Your task to perform on an android device: Open calendar and show me the third week of next month Image 0: 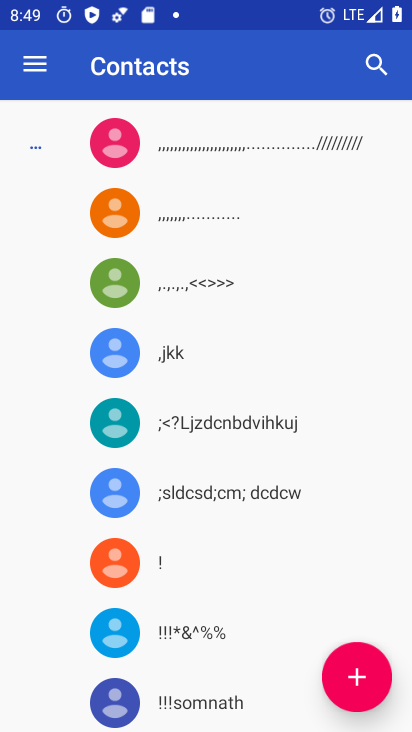
Step 0: press home button
Your task to perform on an android device: Open calendar and show me the third week of next month Image 1: 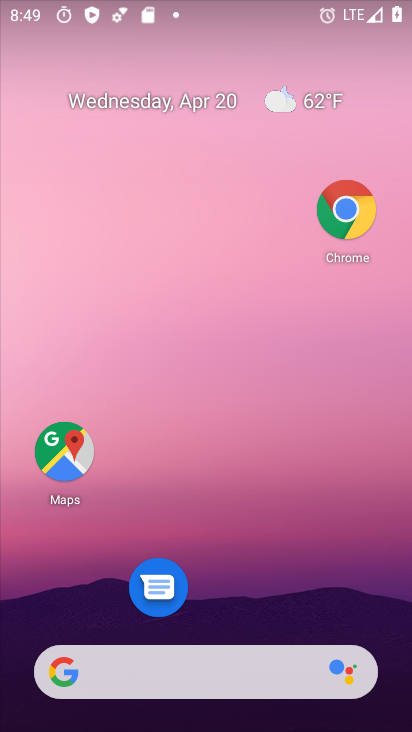
Step 1: click (115, 94)
Your task to perform on an android device: Open calendar and show me the third week of next month Image 2: 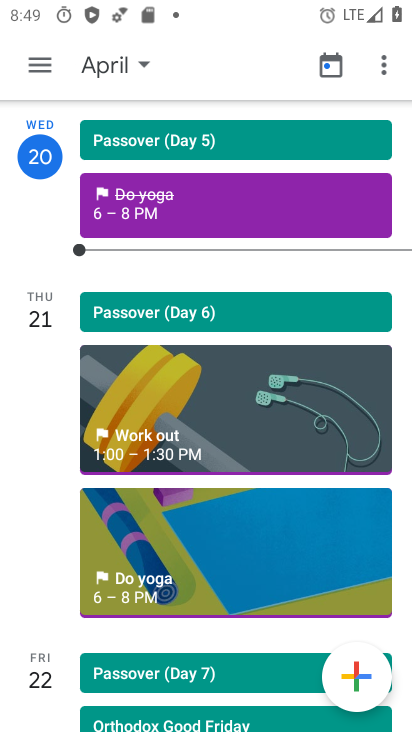
Step 2: click (149, 71)
Your task to perform on an android device: Open calendar and show me the third week of next month Image 3: 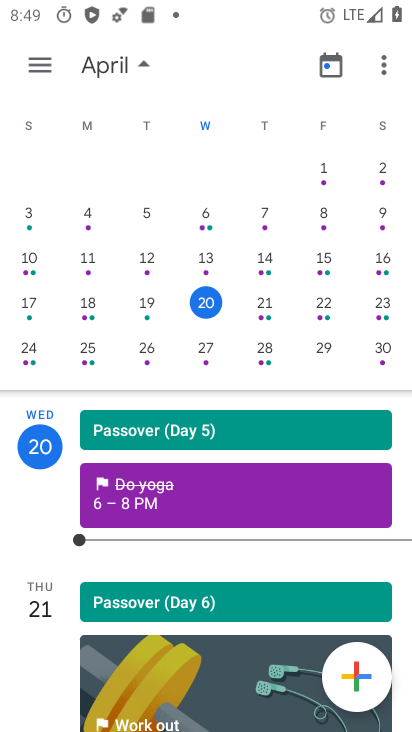
Step 3: drag from (382, 282) to (60, 276)
Your task to perform on an android device: Open calendar and show me the third week of next month Image 4: 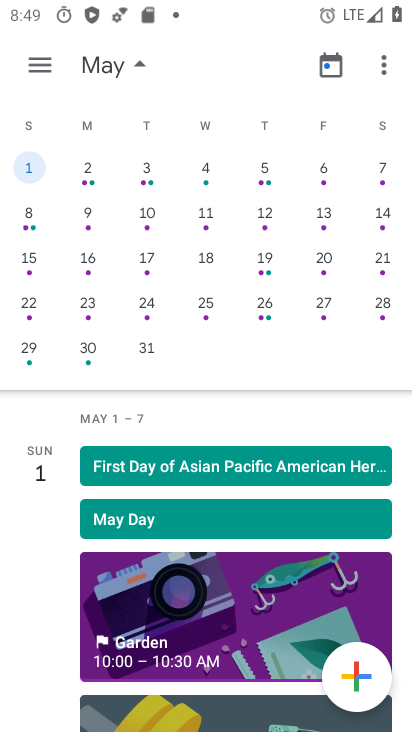
Step 4: click (35, 260)
Your task to perform on an android device: Open calendar and show me the third week of next month Image 5: 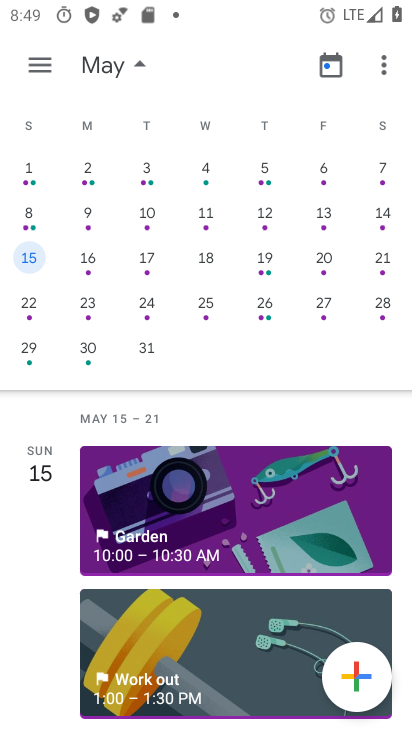
Step 5: task complete